Your task to perform on an android device: toggle wifi Image 0: 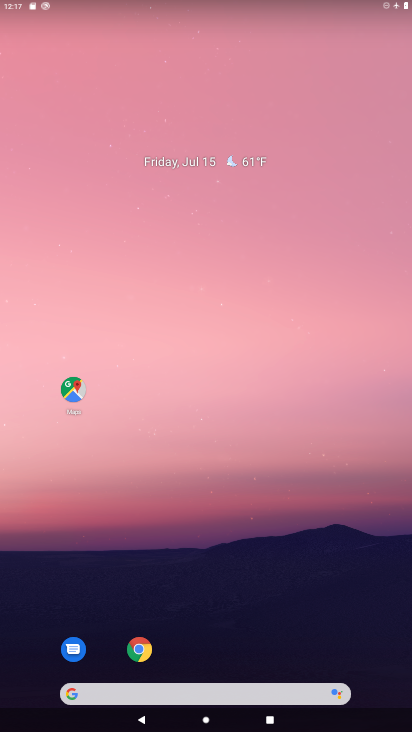
Step 0: drag from (260, 652) to (229, 2)
Your task to perform on an android device: toggle wifi Image 1: 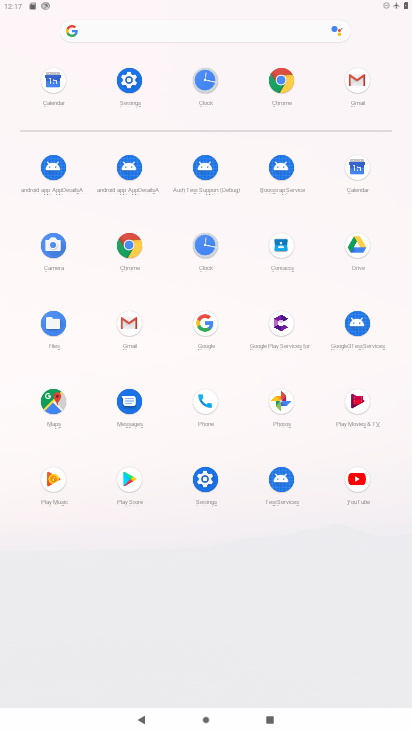
Step 1: click (131, 90)
Your task to perform on an android device: toggle wifi Image 2: 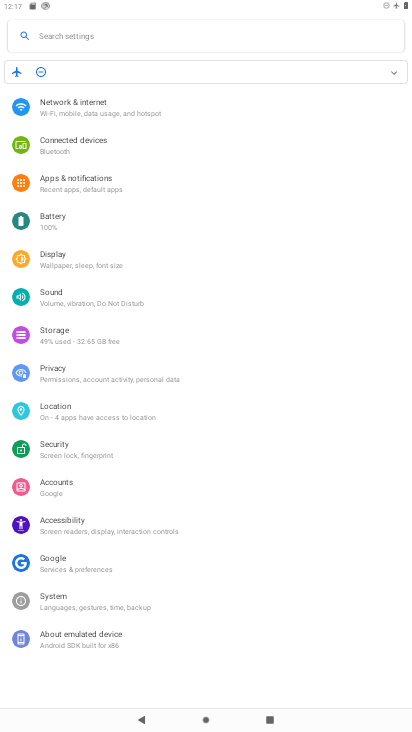
Step 2: click (97, 116)
Your task to perform on an android device: toggle wifi Image 3: 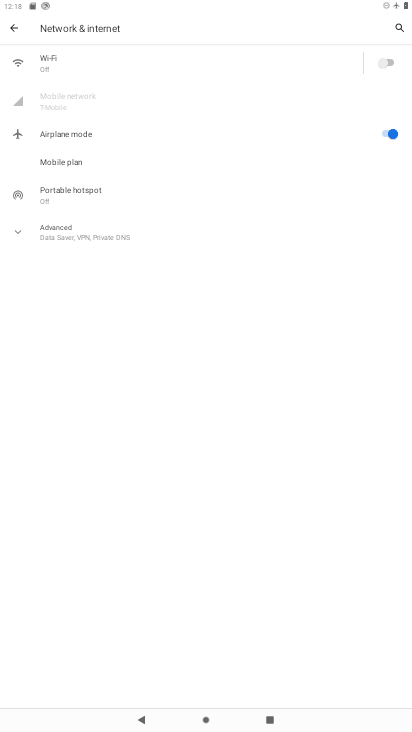
Step 3: click (380, 65)
Your task to perform on an android device: toggle wifi Image 4: 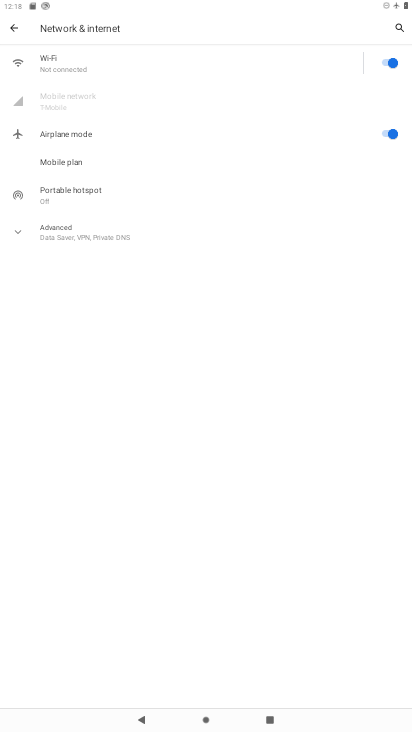
Step 4: task complete